Your task to perform on an android device: Do I have any events this weekend? Image 0: 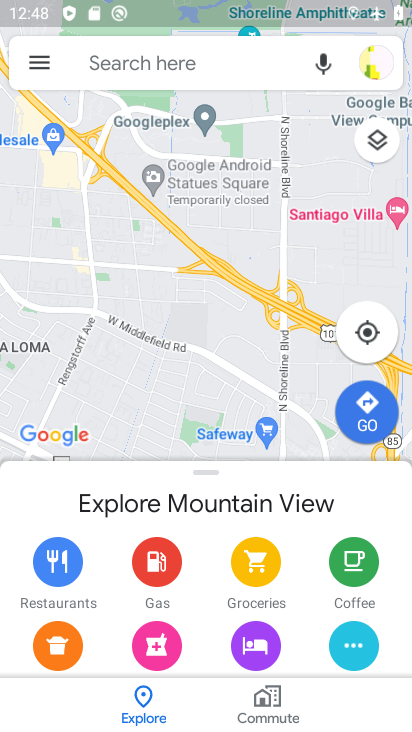
Step 0: press home button
Your task to perform on an android device: Do I have any events this weekend? Image 1: 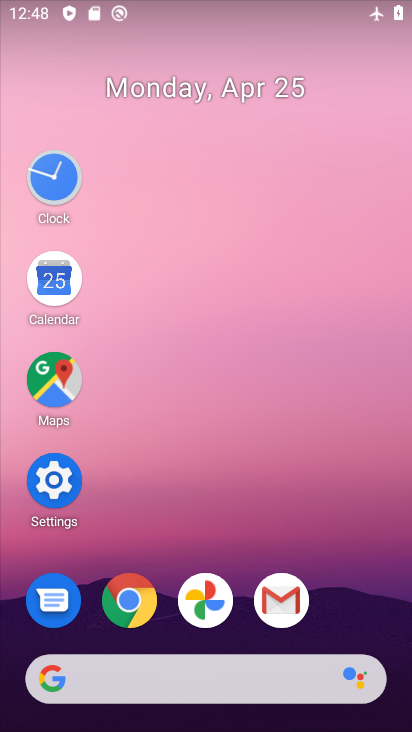
Step 1: click (61, 271)
Your task to perform on an android device: Do I have any events this weekend? Image 2: 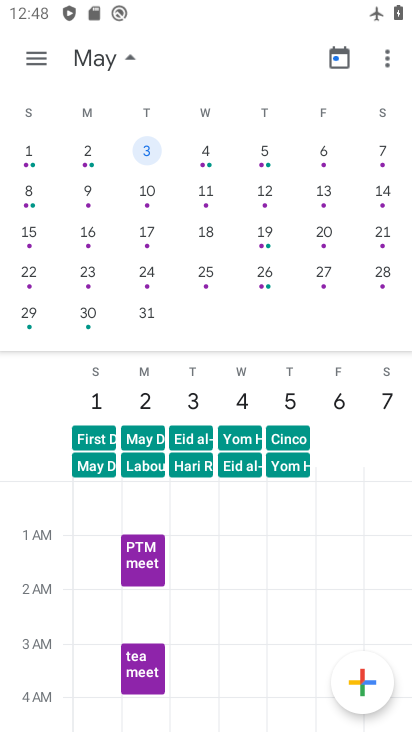
Step 2: drag from (26, 224) to (408, 300)
Your task to perform on an android device: Do I have any events this weekend? Image 3: 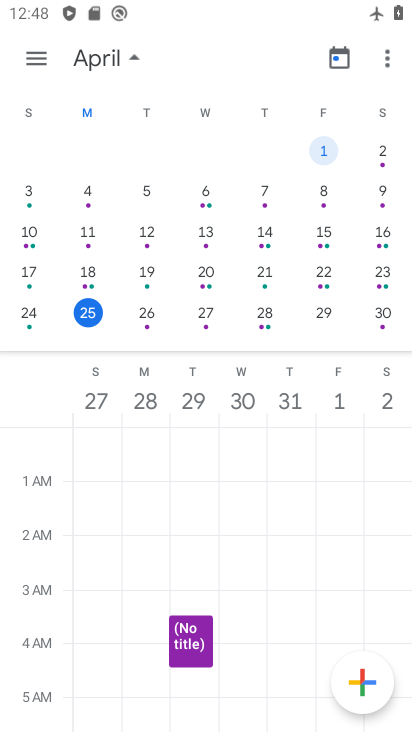
Step 3: click (376, 312)
Your task to perform on an android device: Do I have any events this weekend? Image 4: 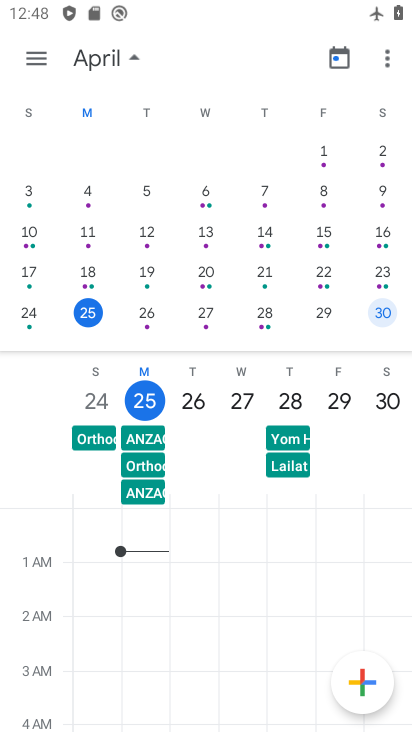
Step 4: click (379, 312)
Your task to perform on an android device: Do I have any events this weekend? Image 5: 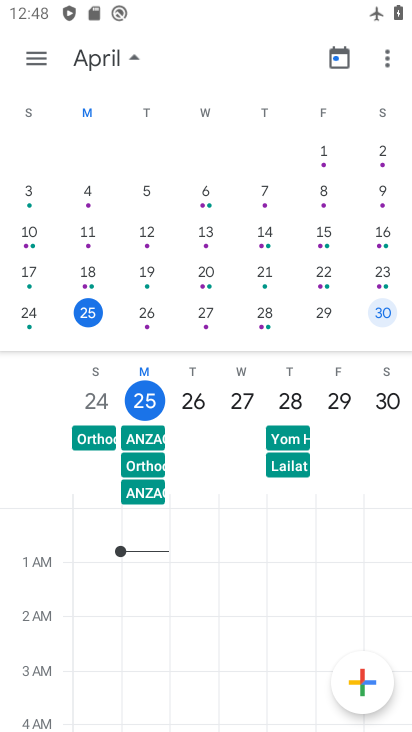
Step 5: click (379, 312)
Your task to perform on an android device: Do I have any events this weekend? Image 6: 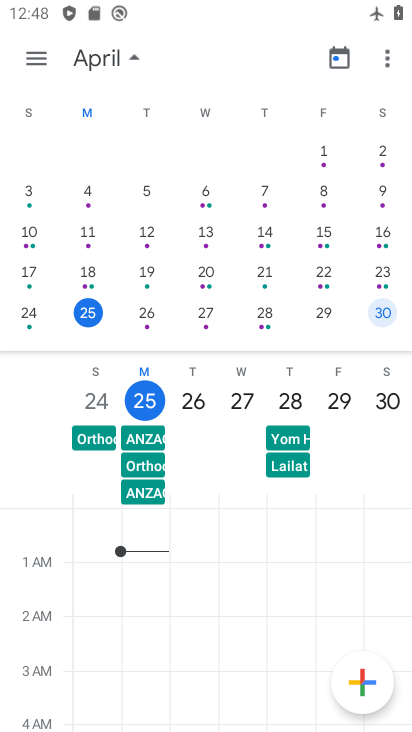
Step 6: task complete